Your task to perform on an android device: turn on the 12-hour format for clock Image 0: 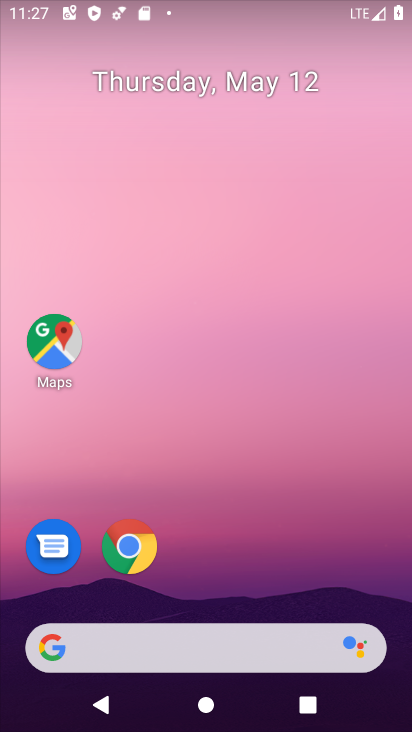
Step 0: drag from (242, 576) to (255, 75)
Your task to perform on an android device: turn on the 12-hour format for clock Image 1: 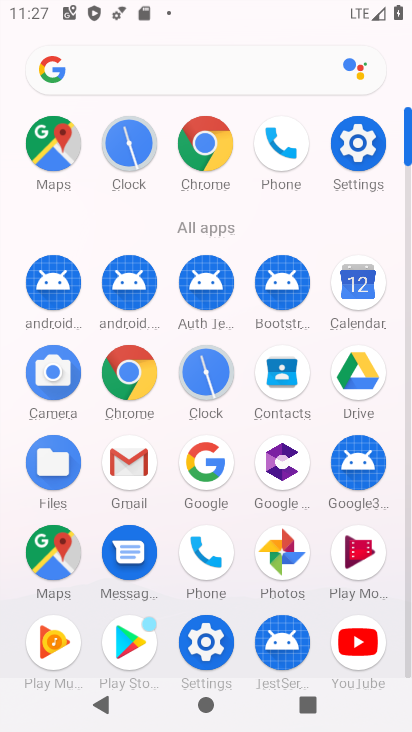
Step 1: click (211, 365)
Your task to perform on an android device: turn on the 12-hour format for clock Image 2: 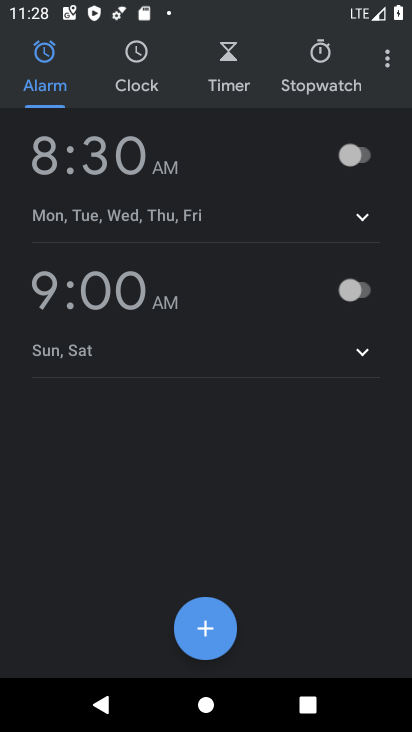
Step 2: click (388, 57)
Your task to perform on an android device: turn on the 12-hour format for clock Image 3: 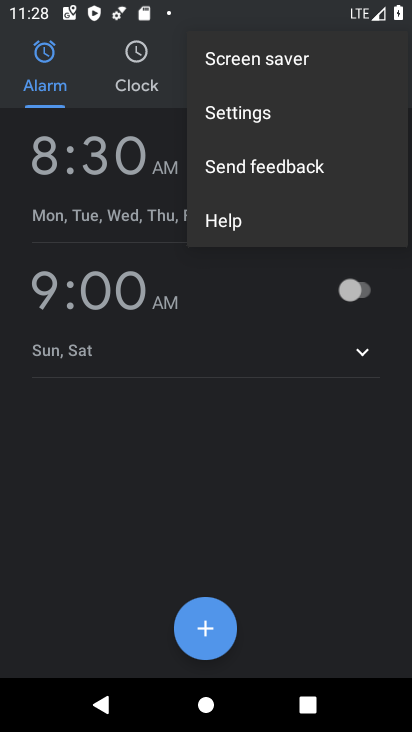
Step 3: click (242, 108)
Your task to perform on an android device: turn on the 12-hour format for clock Image 4: 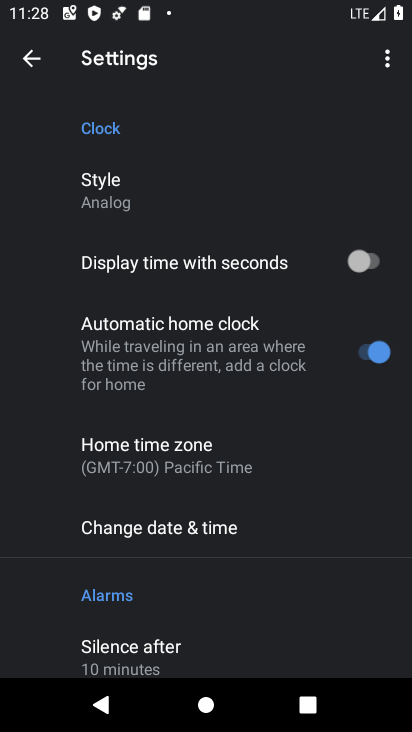
Step 4: click (205, 530)
Your task to perform on an android device: turn on the 12-hour format for clock Image 5: 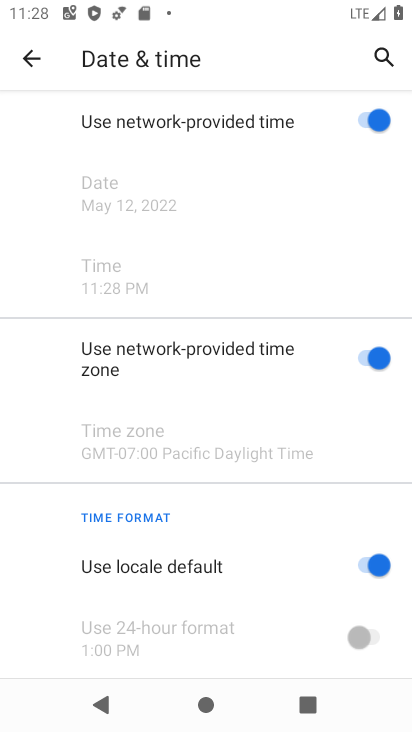
Step 5: task complete